Your task to perform on an android device: check battery use Image 0: 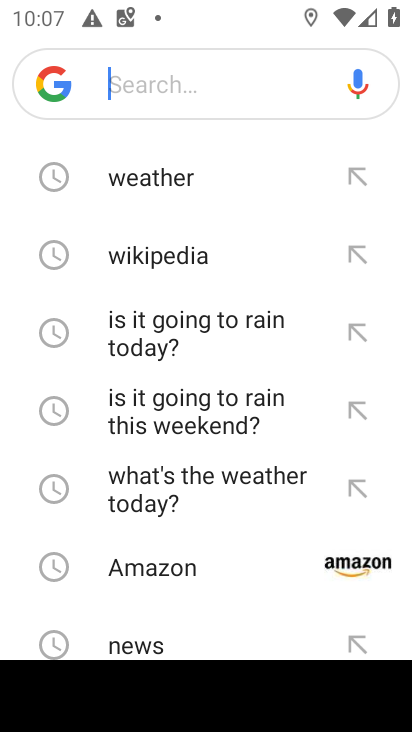
Step 0: press home button
Your task to perform on an android device: check battery use Image 1: 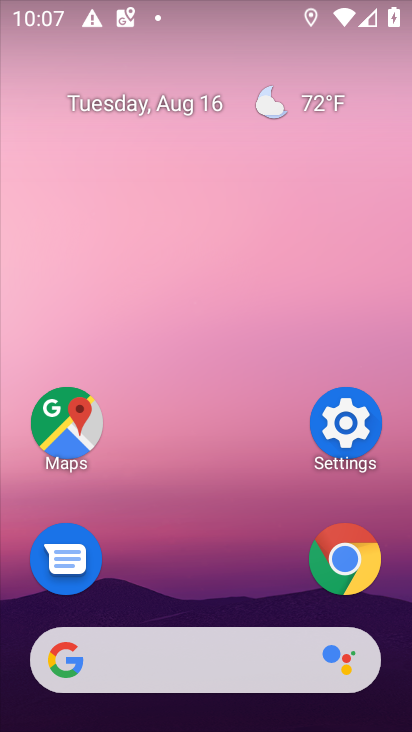
Step 1: click (346, 426)
Your task to perform on an android device: check battery use Image 2: 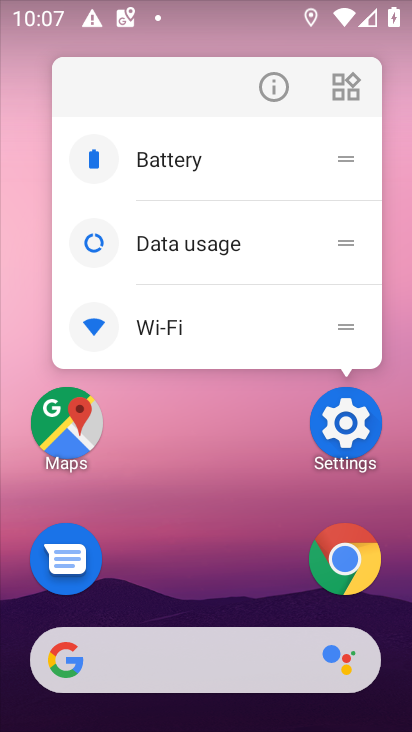
Step 2: click (331, 418)
Your task to perform on an android device: check battery use Image 3: 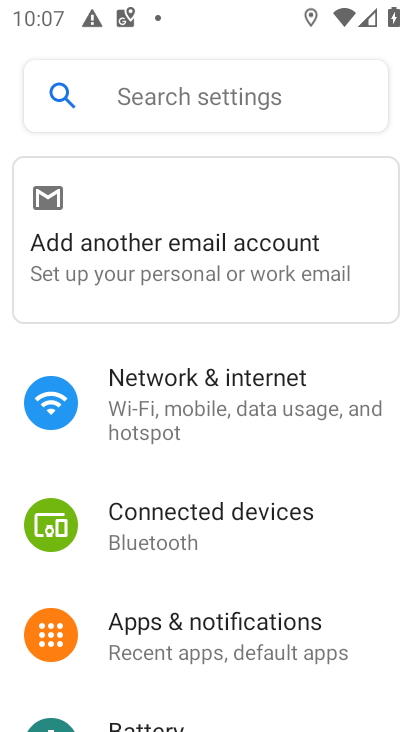
Step 3: drag from (210, 654) to (294, 171)
Your task to perform on an android device: check battery use Image 4: 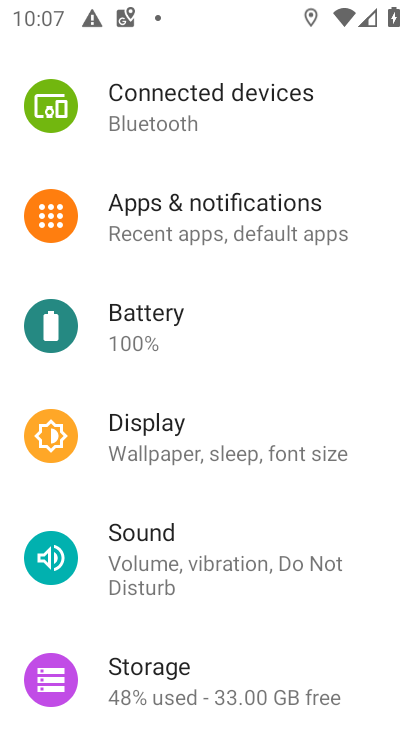
Step 4: click (151, 336)
Your task to perform on an android device: check battery use Image 5: 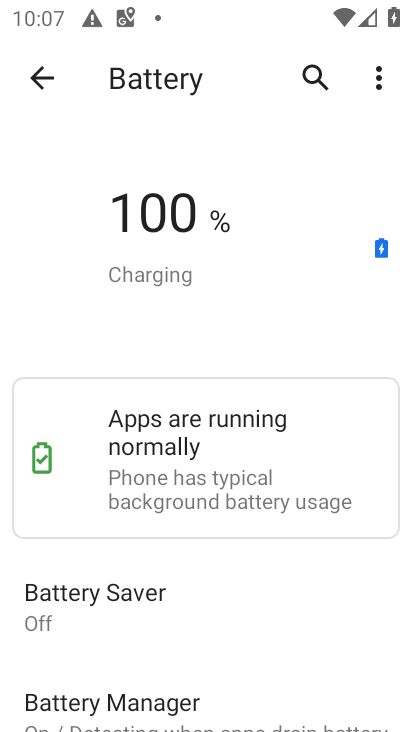
Step 5: click (375, 81)
Your task to perform on an android device: check battery use Image 6: 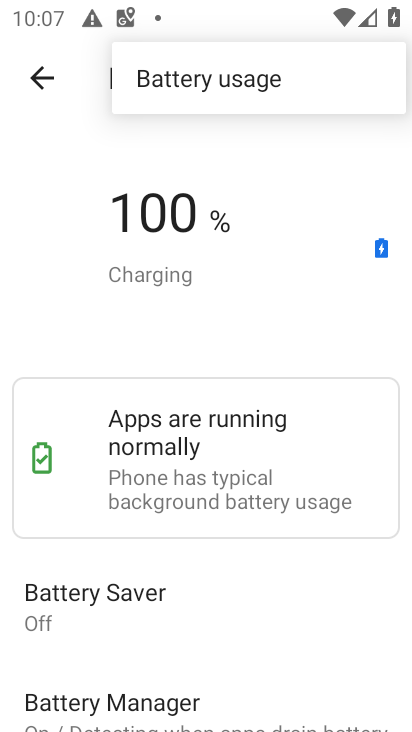
Step 6: click (282, 77)
Your task to perform on an android device: check battery use Image 7: 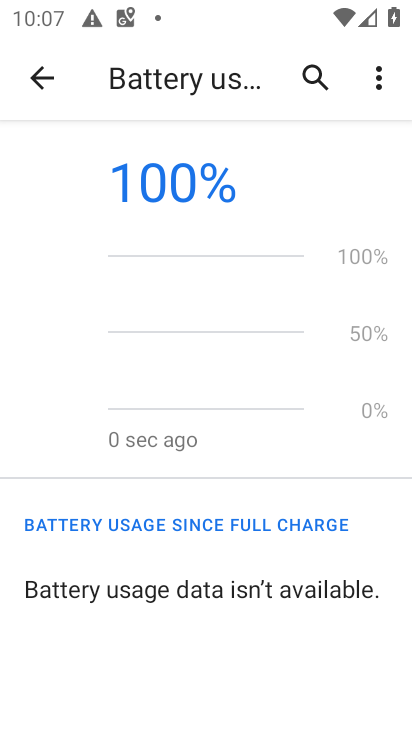
Step 7: task complete